Your task to perform on an android device: turn off location Image 0: 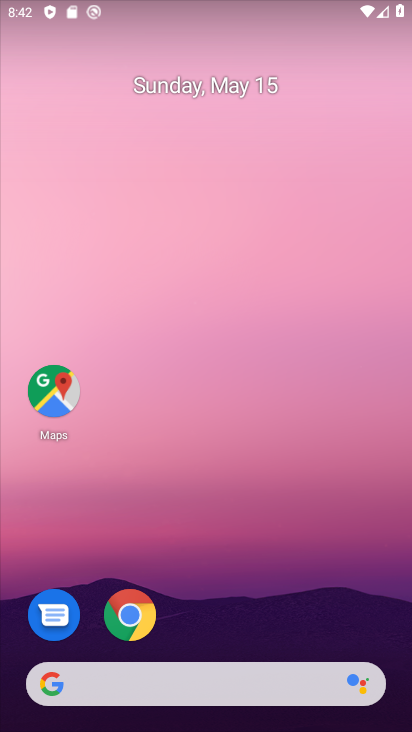
Step 0: drag from (253, 506) to (205, 25)
Your task to perform on an android device: turn off location Image 1: 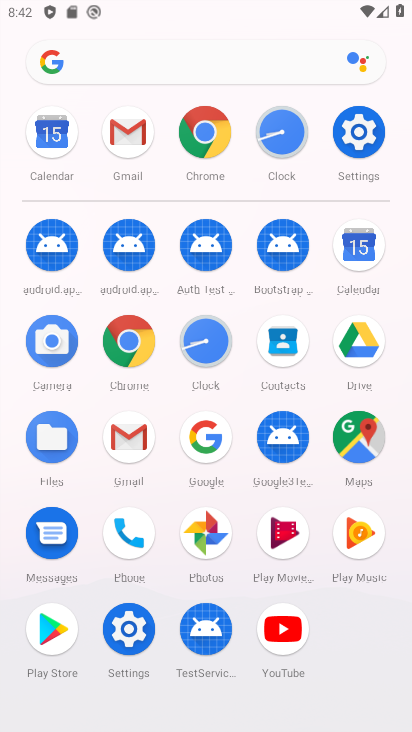
Step 1: click (127, 628)
Your task to perform on an android device: turn off location Image 2: 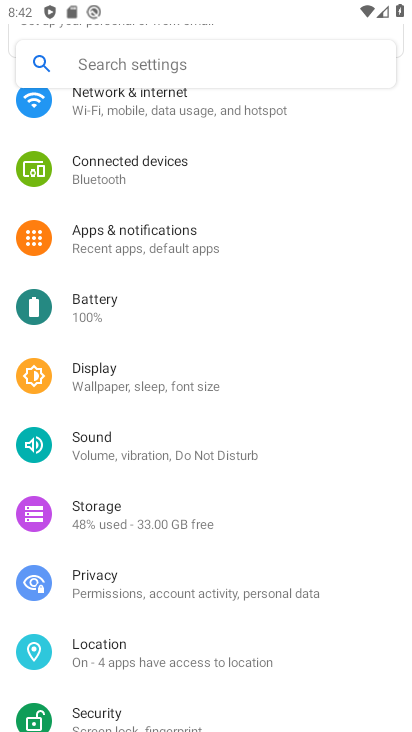
Step 2: click (140, 653)
Your task to perform on an android device: turn off location Image 3: 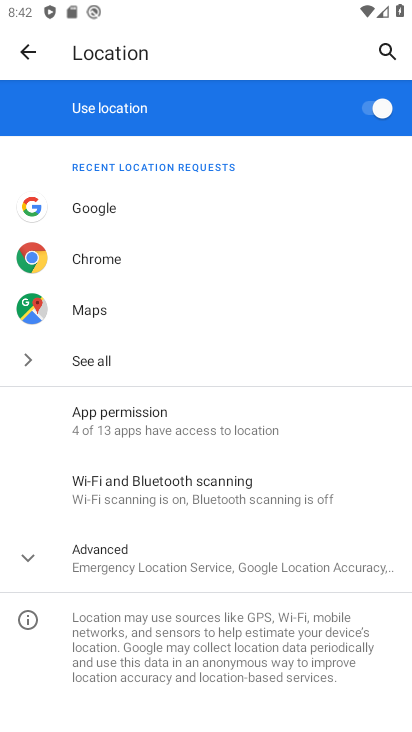
Step 3: click (378, 101)
Your task to perform on an android device: turn off location Image 4: 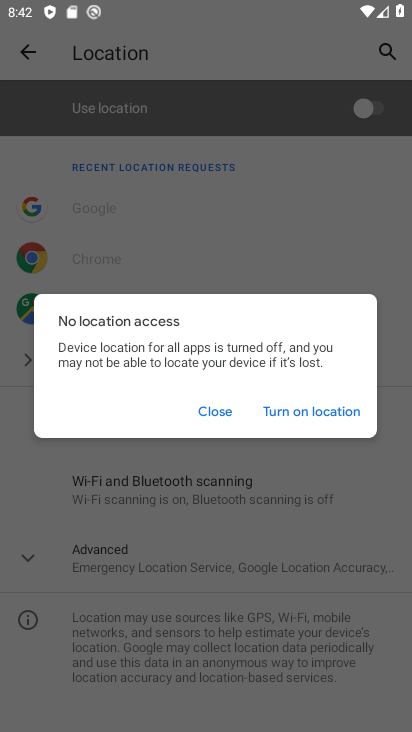
Step 4: click (218, 412)
Your task to perform on an android device: turn off location Image 5: 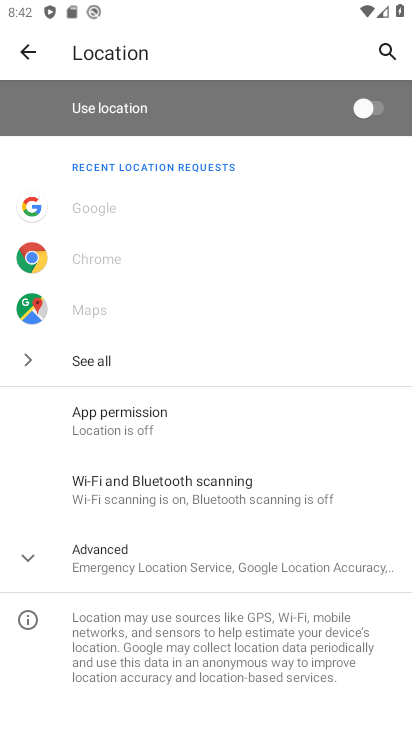
Step 5: task complete